Your task to perform on an android device: open sync settings in chrome Image 0: 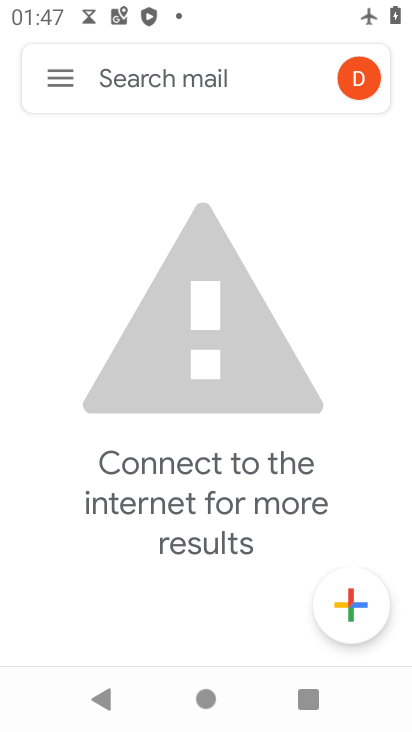
Step 0: click (50, 63)
Your task to perform on an android device: open sync settings in chrome Image 1: 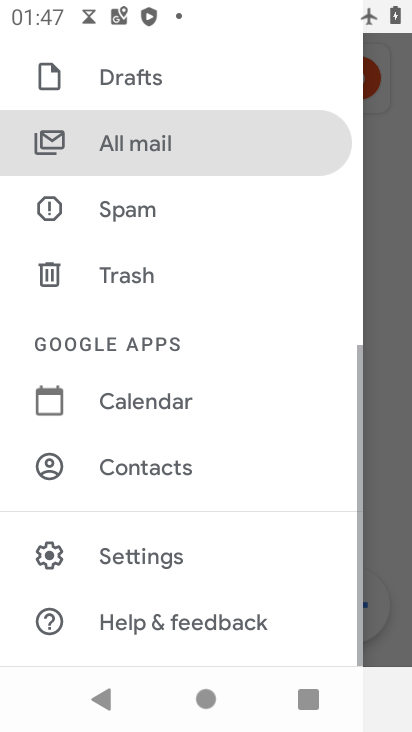
Step 1: press home button
Your task to perform on an android device: open sync settings in chrome Image 2: 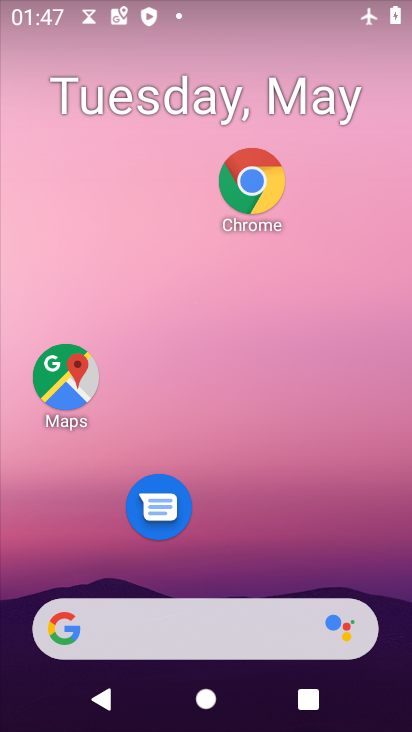
Step 2: click (243, 172)
Your task to perform on an android device: open sync settings in chrome Image 3: 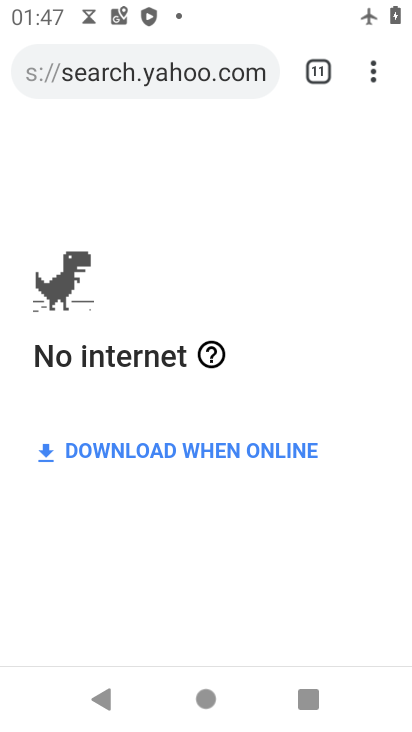
Step 3: click (362, 64)
Your task to perform on an android device: open sync settings in chrome Image 4: 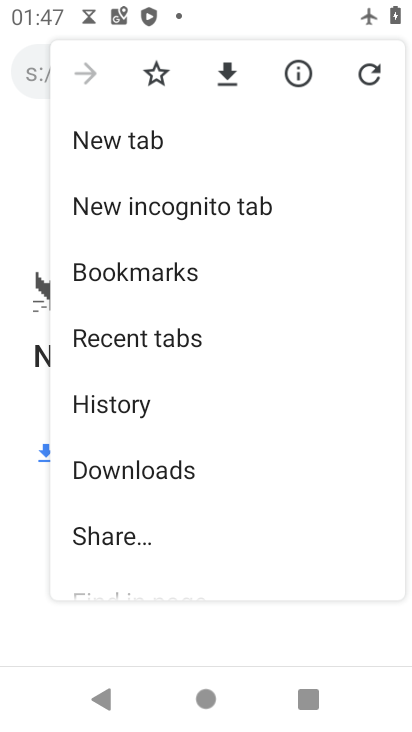
Step 4: drag from (146, 517) to (196, 226)
Your task to perform on an android device: open sync settings in chrome Image 5: 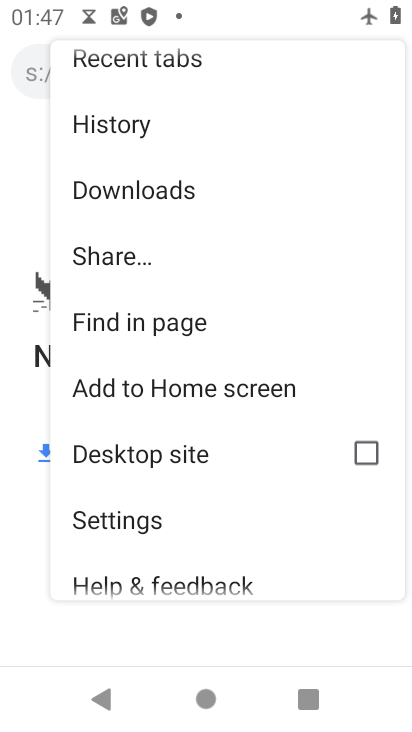
Step 5: click (158, 515)
Your task to perform on an android device: open sync settings in chrome Image 6: 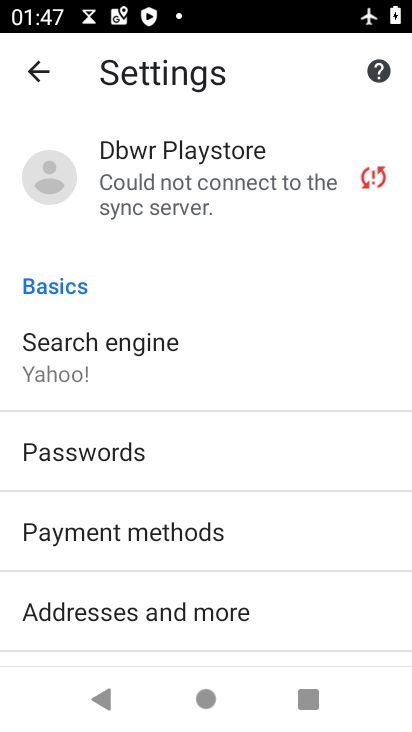
Step 6: click (148, 216)
Your task to perform on an android device: open sync settings in chrome Image 7: 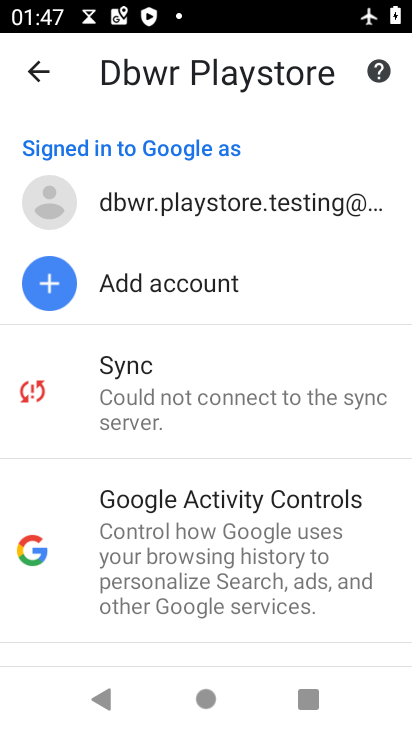
Step 7: task complete